Your task to perform on an android device: Toggle the flashlight Image 0: 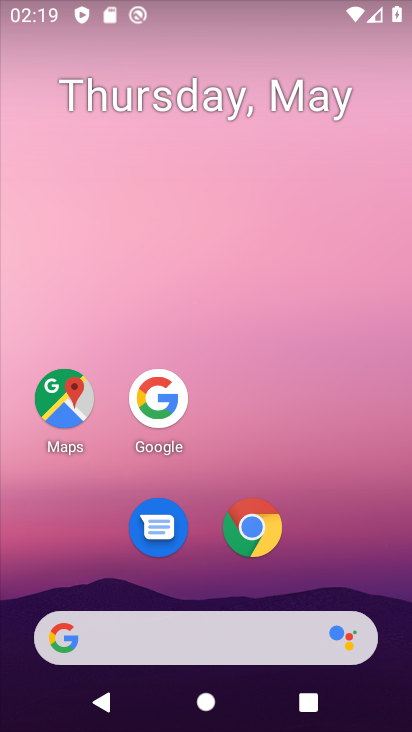
Step 0: drag from (223, 560) to (272, 251)
Your task to perform on an android device: Toggle the flashlight Image 1: 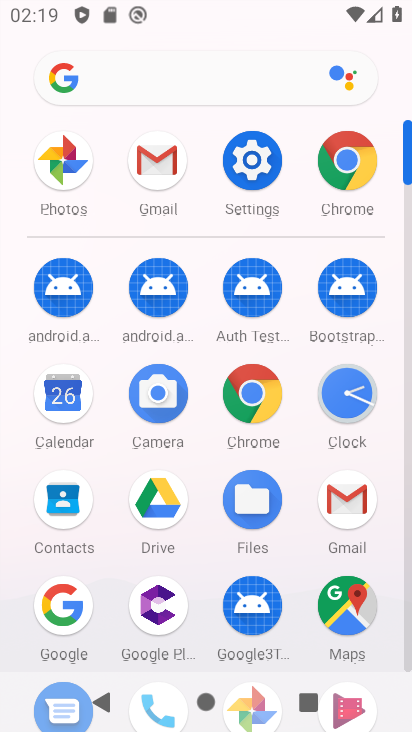
Step 1: click (246, 145)
Your task to perform on an android device: Toggle the flashlight Image 2: 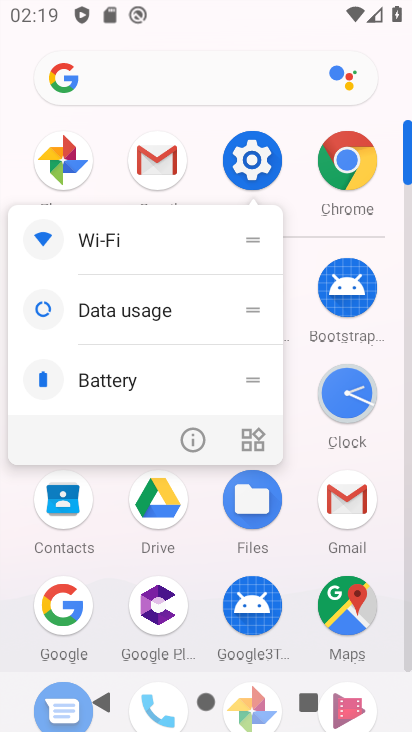
Step 2: click (187, 428)
Your task to perform on an android device: Toggle the flashlight Image 3: 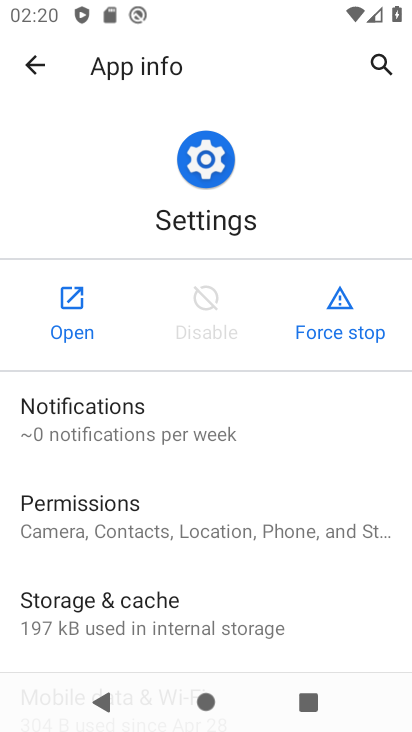
Step 3: click (64, 296)
Your task to perform on an android device: Toggle the flashlight Image 4: 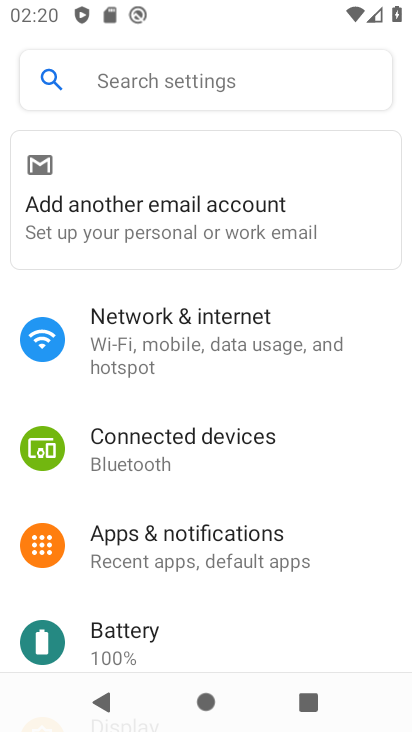
Step 4: click (205, 74)
Your task to perform on an android device: Toggle the flashlight Image 5: 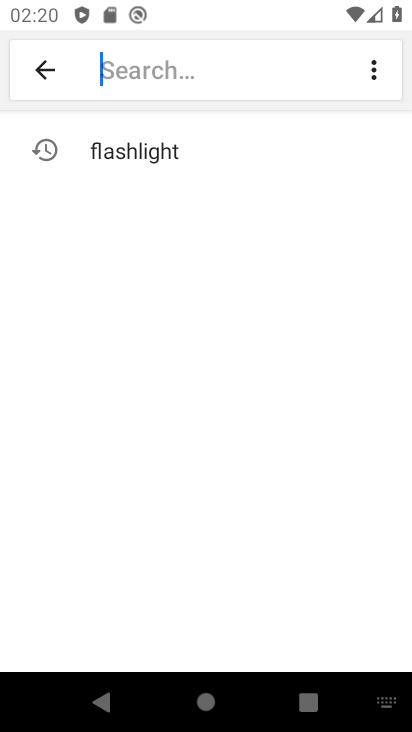
Step 5: click (128, 167)
Your task to perform on an android device: Toggle the flashlight Image 6: 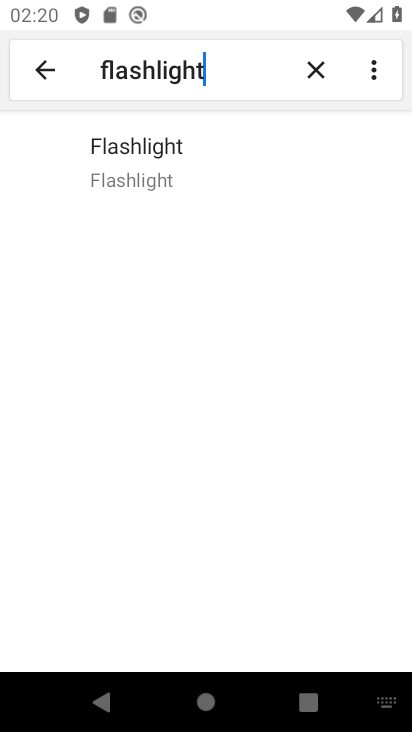
Step 6: click (178, 140)
Your task to perform on an android device: Toggle the flashlight Image 7: 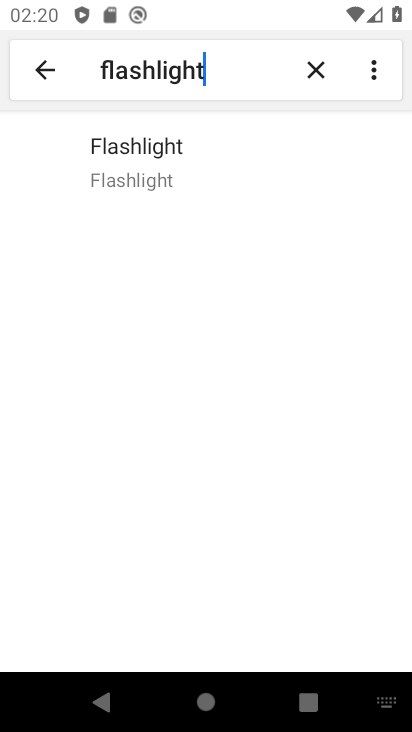
Step 7: task complete